Your task to perform on an android device: turn on showing notifications on the lock screen Image 0: 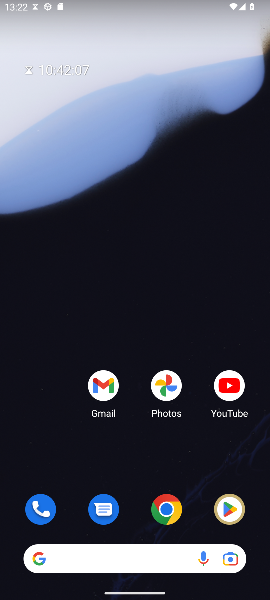
Step 0: press home button
Your task to perform on an android device: turn on showing notifications on the lock screen Image 1: 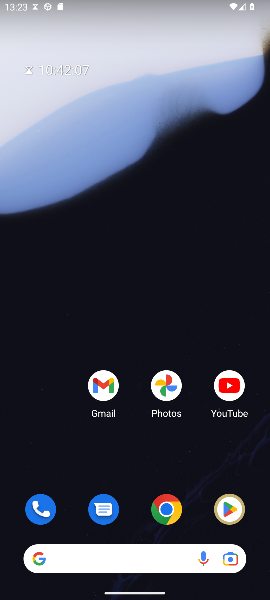
Step 1: drag from (137, 520) to (191, 175)
Your task to perform on an android device: turn on showing notifications on the lock screen Image 2: 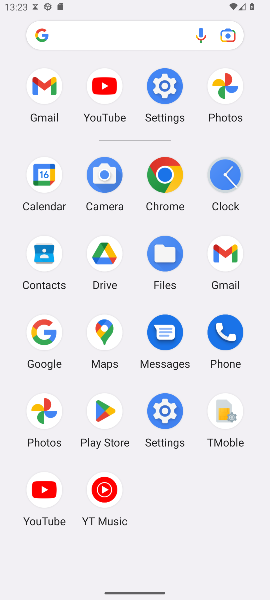
Step 2: click (170, 413)
Your task to perform on an android device: turn on showing notifications on the lock screen Image 3: 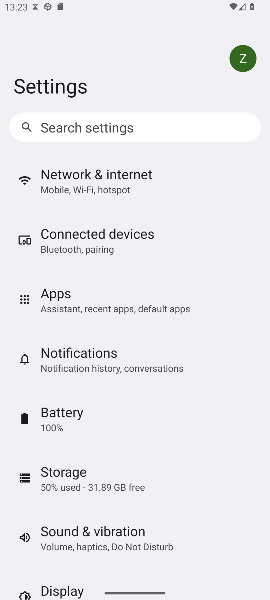
Step 3: click (72, 357)
Your task to perform on an android device: turn on showing notifications on the lock screen Image 4: 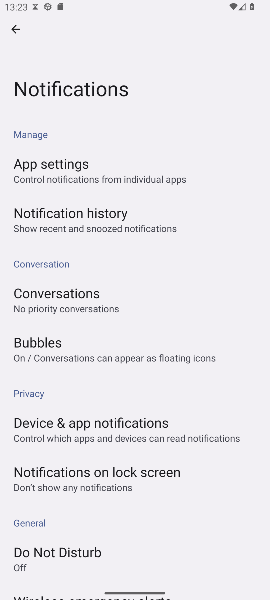
Step 4: click (83, 479)
Your task to perform on an android device: turn on showing notifications on the lock screen Image 5: 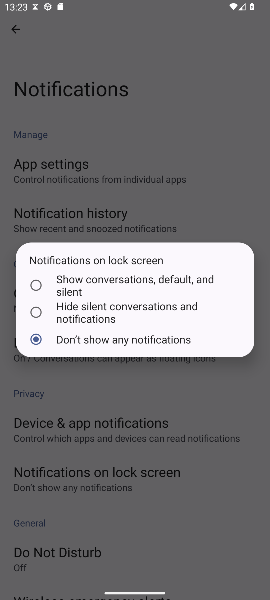
Step 5: click (30, 287)
Your task to perform on an android device: turn on showing notifications on the lock screen Image 6: 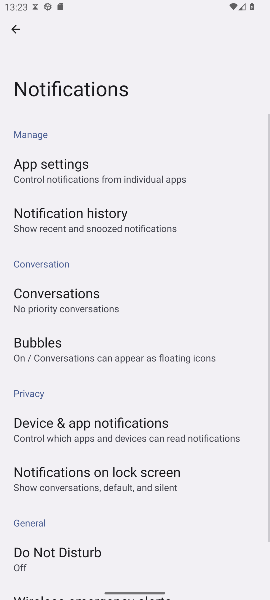
Step 6: task complete